Your task to perform on an android device: turn off picture-in-picture Image 0: 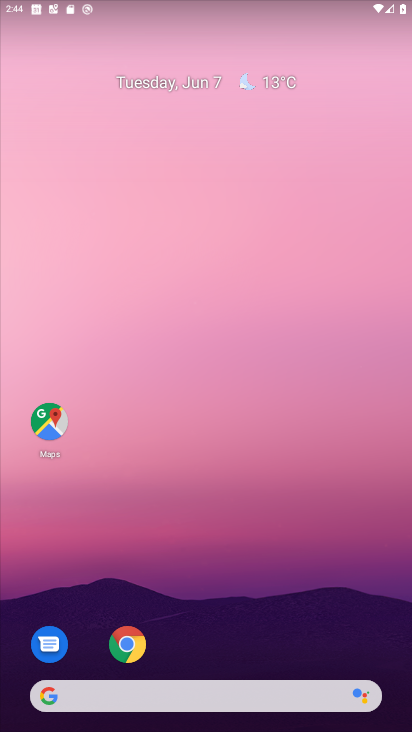
Step 0: press home button
Your task to perform on an android device: turn off picture-in-picture Image 1: 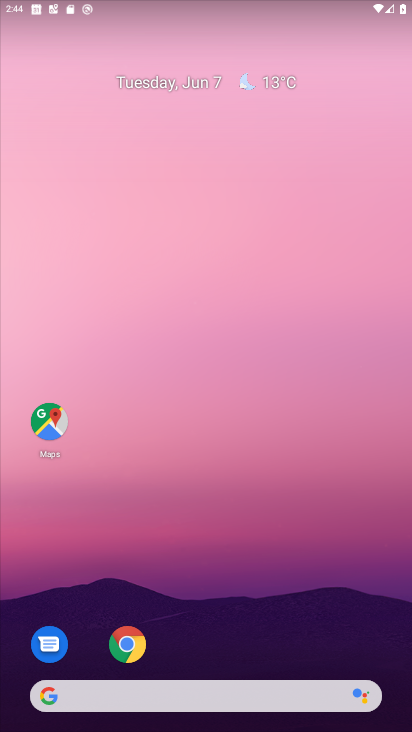
Step 1: click (124, 639)
Your task to perform on an android device: turn off picture-in-picture Image 2: 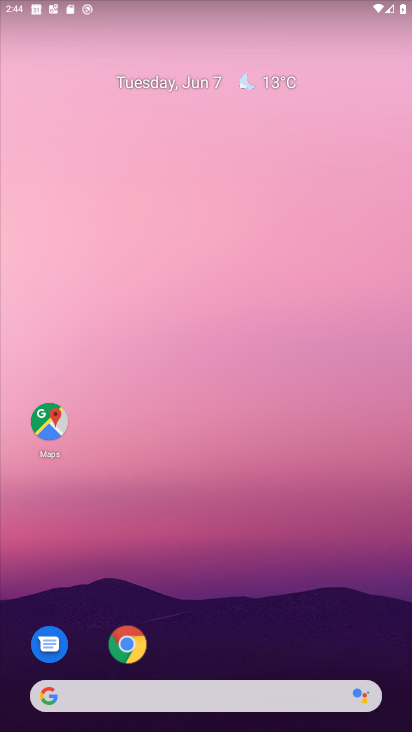
Step 2: click (124, 639)
Your task to perform on an android device: turn off picture-in-picture Image 3: 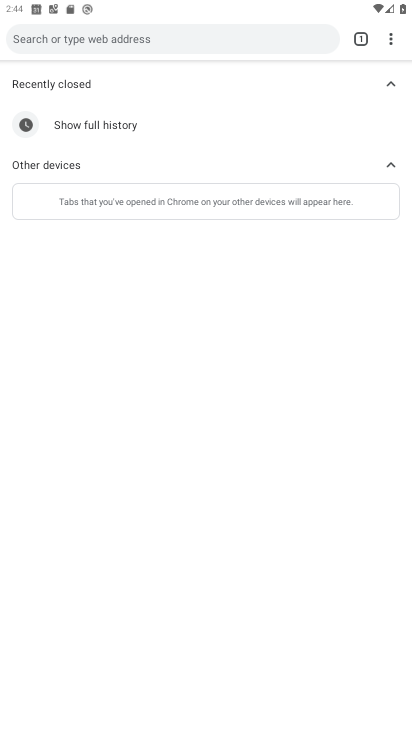
Step 3: press home button
Your task to perform on an android device: turn off picture-in-picture Image 4: 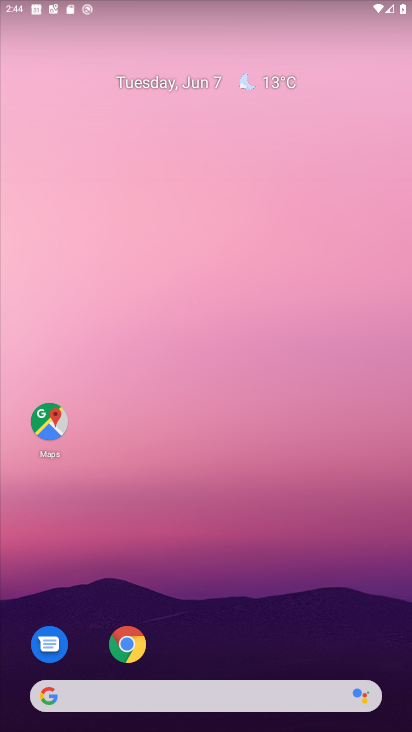
Step 4: click (126, 643)
Your task to perform on an android device: turn off picture-in-picture Image 5: 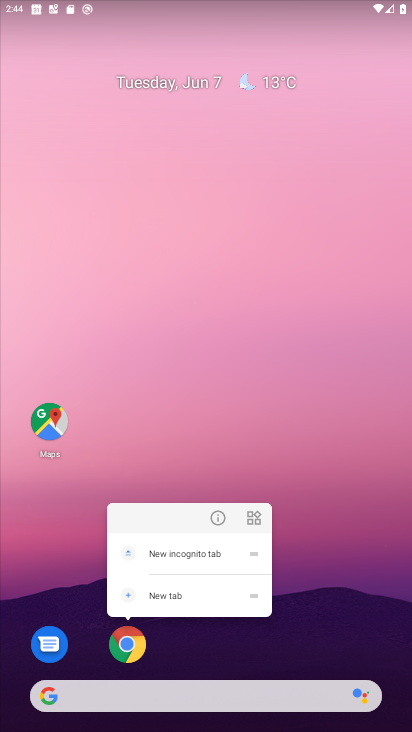
Step 5: click (217, 517)
Your task to perform on an android device: turn off picture-in-picture Image 6: 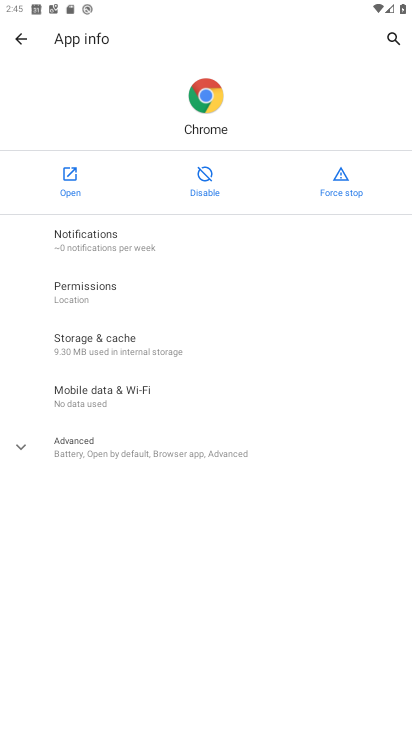
Step 6: click (24, 443)
Your task to perform on an android device: turn off picture-in-picture Image 7: 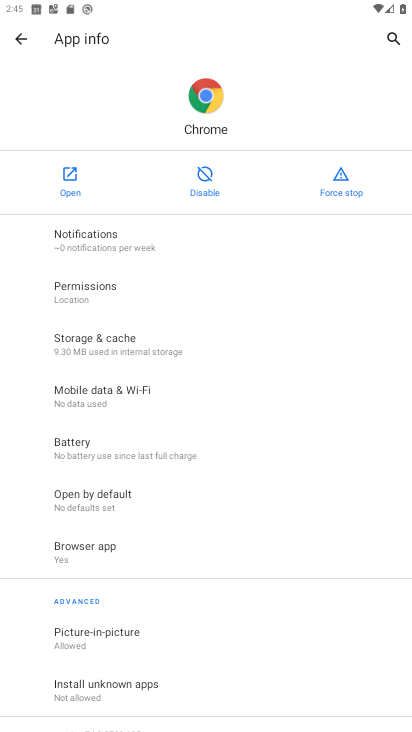
Step 7: click (120, 638)
Your task to perform on an android device: turn off picture-in-picture Image 8: 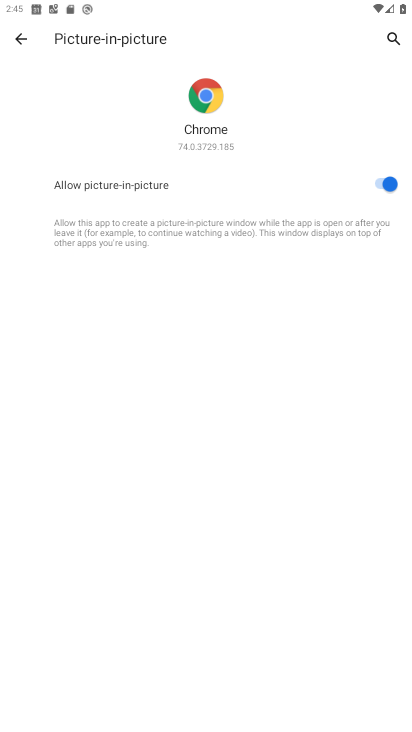
Step 8: click (388, 179)
Your task to perform on an android device: turn off picture-in-picture Image 9: 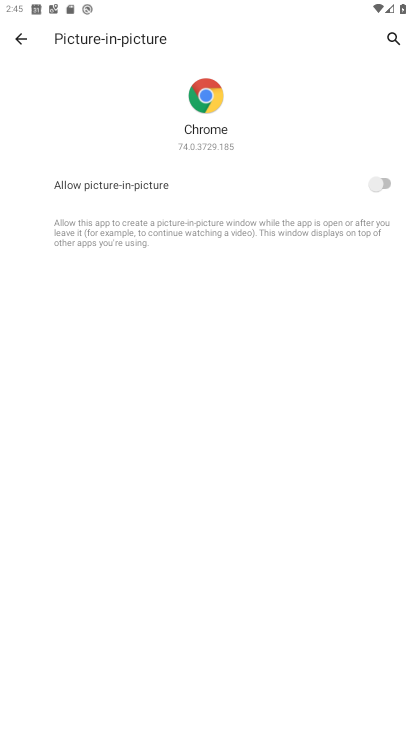
Step 9: task complete